Your task to perform on an android device: Open Google Maps and go to "Timeline" Image 0: 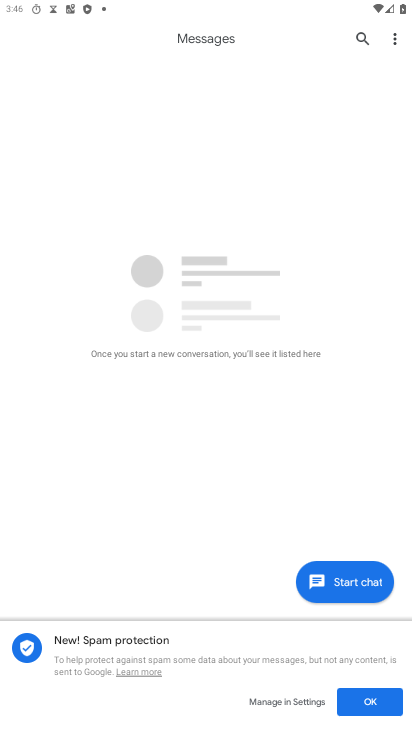
Step 0: press home button
Your task to perform on an android device: Open Google Maps and go to "Timeline" Image 1: 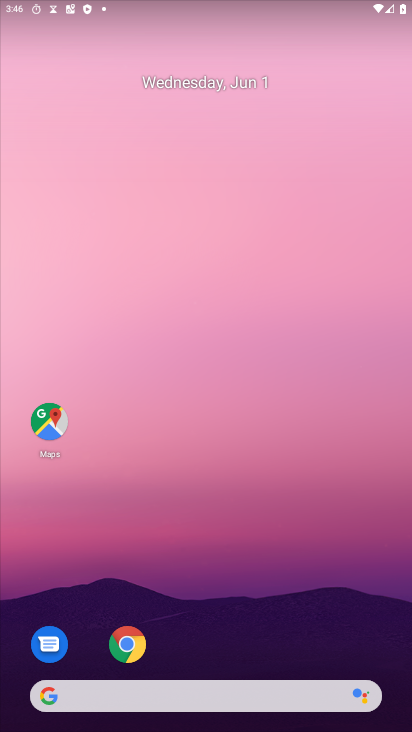
Step 1: click (46, 420)
Your task to perform on an android device: Open Google Maps and go to "Timeline" Image 2: 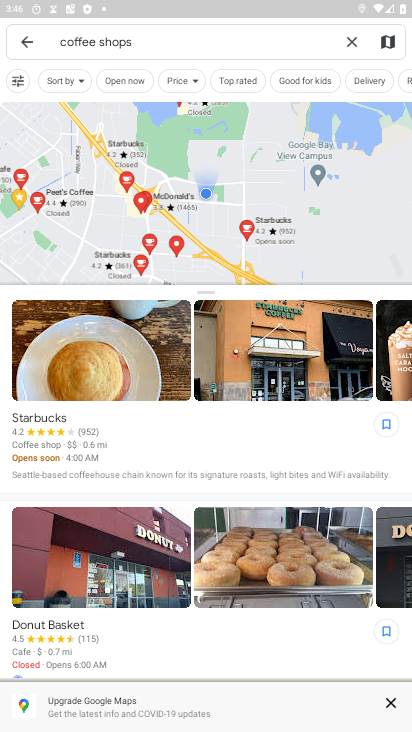
Step 2: click (351, 44)
Your task to perform on an android device: Open Google Maps and go to "Timeline" Image 3: 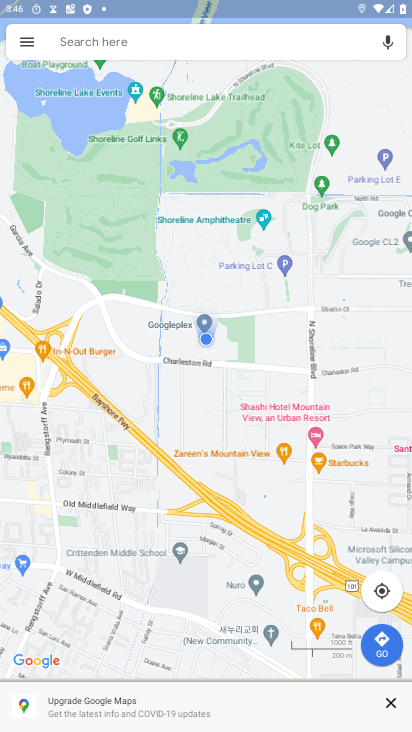
Step 3: click (33, 39)
Your task to perform on an android device: Open Google Maps and go to "Timeline" Image 4: 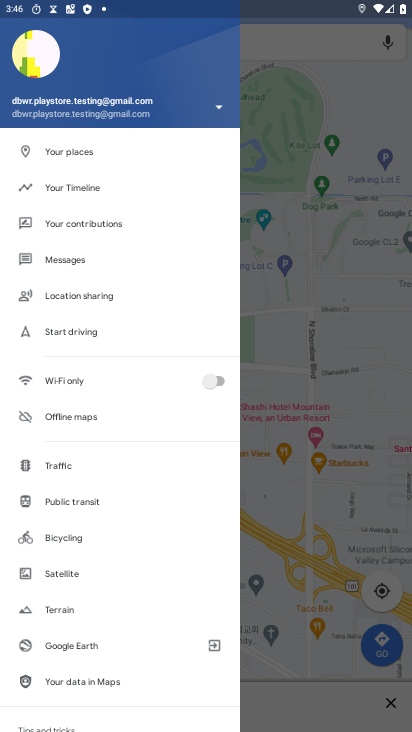
Step 4: click (57, 189)
Your task to perform on an android device: Open Google Maps and go to "Timeline" Image 5: 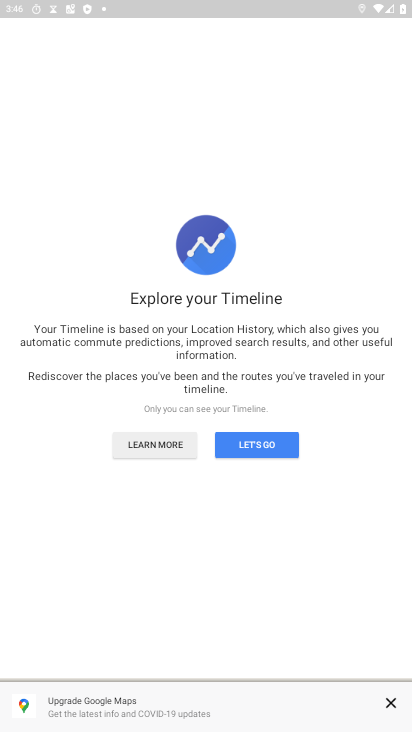
Step 5: click (259, 448)
Your task to perform on an android device: Open Google Maps and go to "Timeline" Image 6: 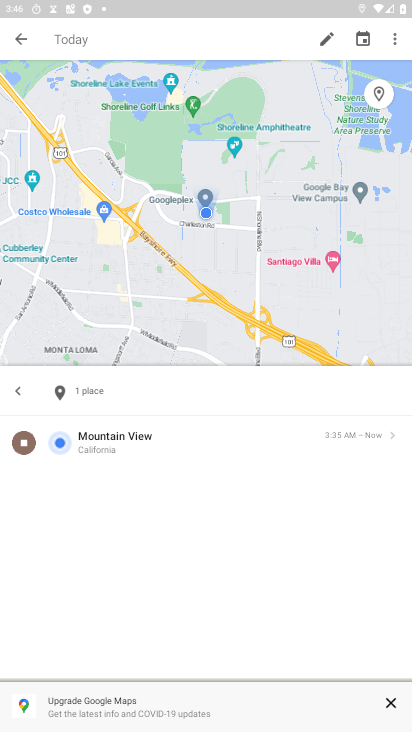
Step 6: task complete